Your task to perform on an android device: turn on data saver in the chrome app Image 0: 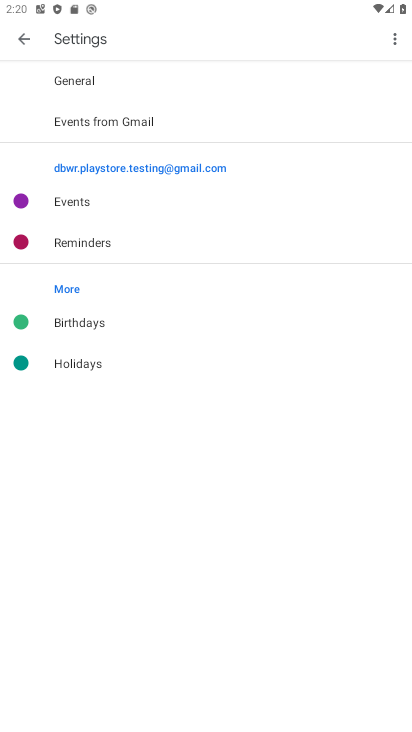
Step 0: press home button
Your task to perform on an android device: turn on data saver in the chrome app Image 1: 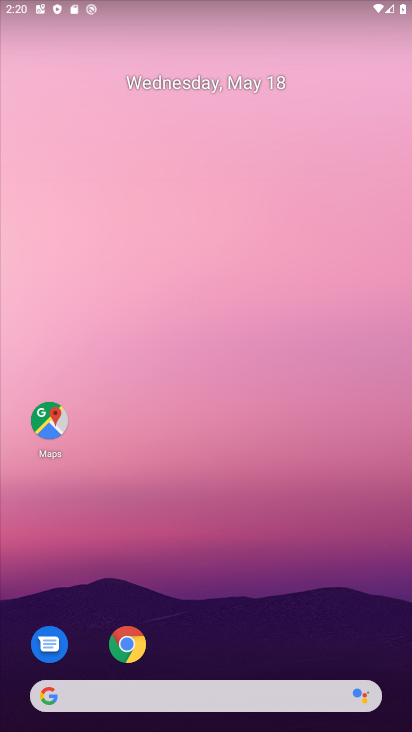
Step 1: click (128, 645)
Your task to perform on an android device: turn on data saver in the chrome app Image 2: 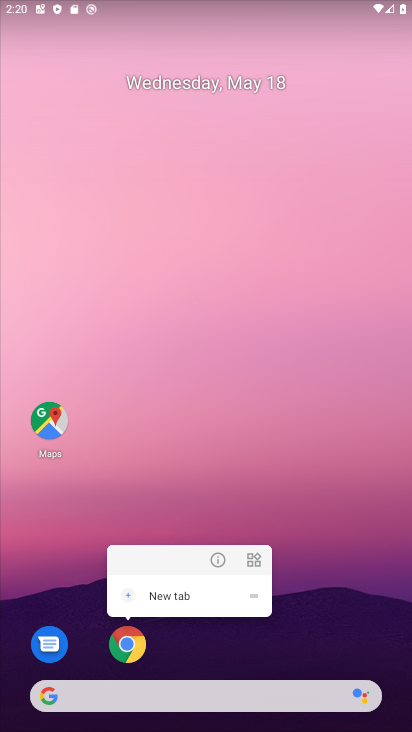
Step 2: click (128, 643)
Your task to perform on an android device: turn on data saver in the chrome app Image 3: 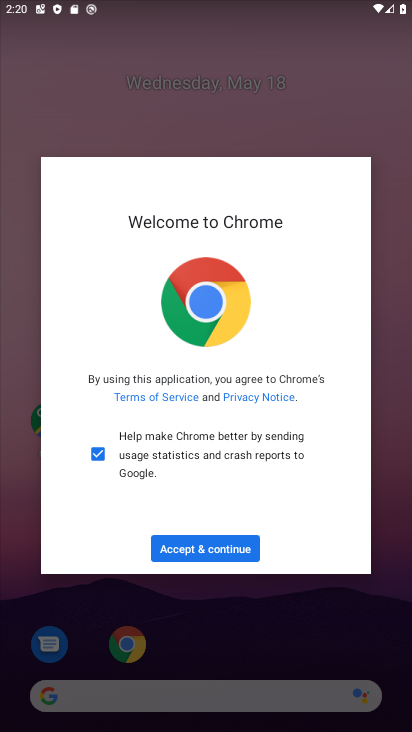
Step 3: click (228, 548)
Your task to perform on an android device: turn on data saver in the chrome app Image 4: 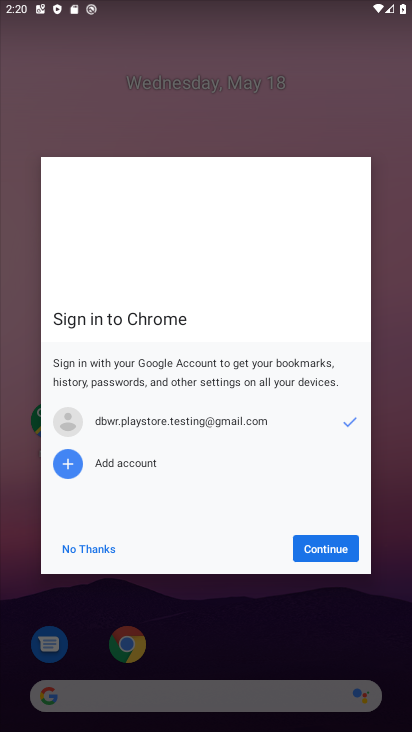
Step 4: click (322, 546)
Your task to perform on an android device: turn on data saver in the chrome app Image 5: 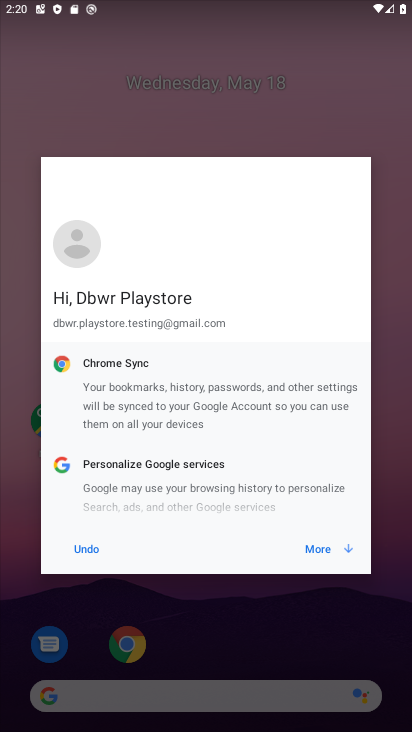
Step 5: click (322, 546)
Your task to perform on an android device: turn on data saver in the chrome app Image 6: 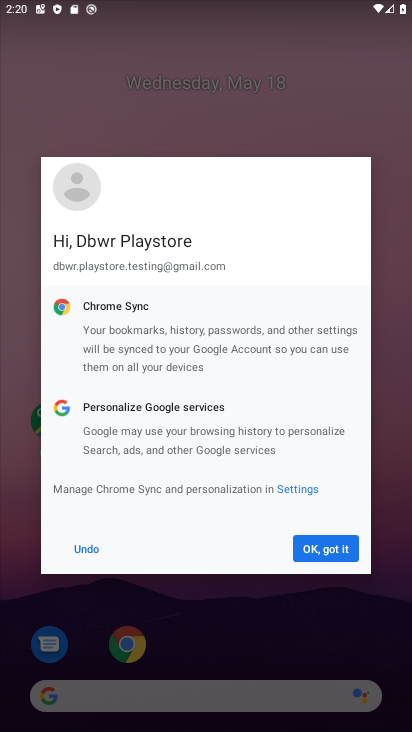
Step 6: click (322, 546)
Your task to perform on an android device: turn on data saver in the chrome app Image 7: 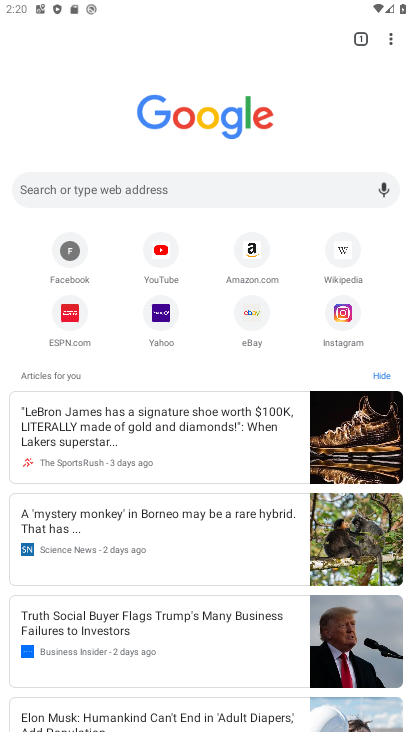
Step 7: click (394, 30)
Your task to perform on an android device: turn on data saver in the chrome app Image 8: 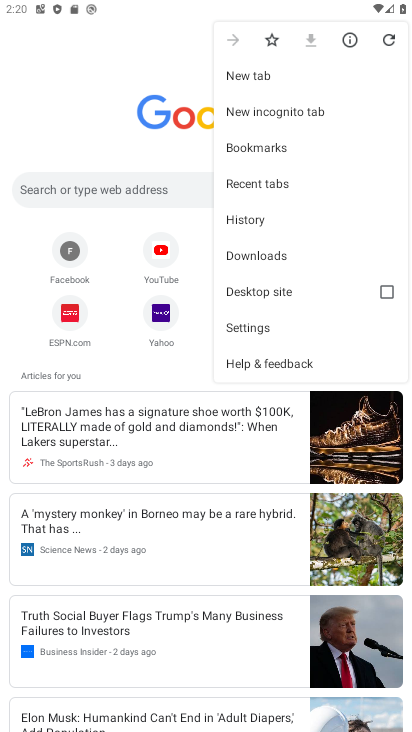
Step 8: click (275, 327)
Your task to perform on an android device: turn on data saver in the chrome app Image 9: 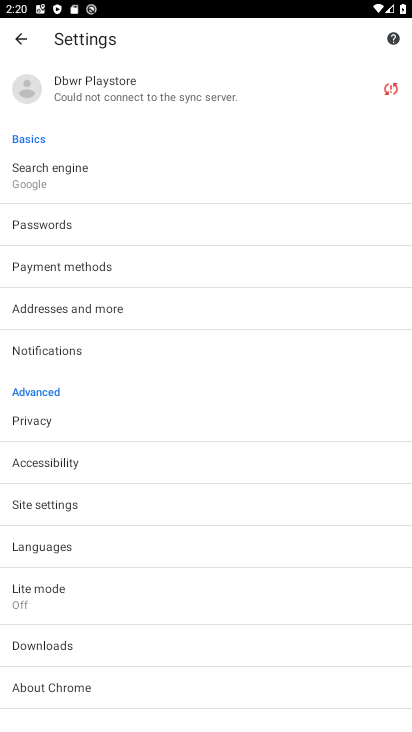
Step 9: click (133, 597)
Your task to perform on an android device: turn on data saver in the chrome app Image 10: 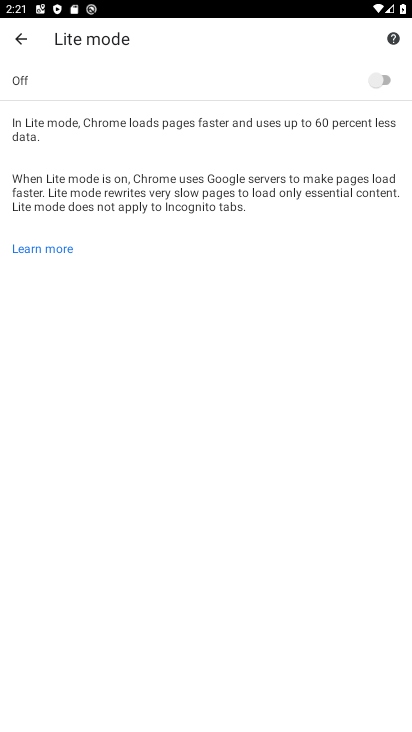
Step 10: click (398, 79)
Your task to perform on an android device: turn on data saver in the chrome app Image 11: 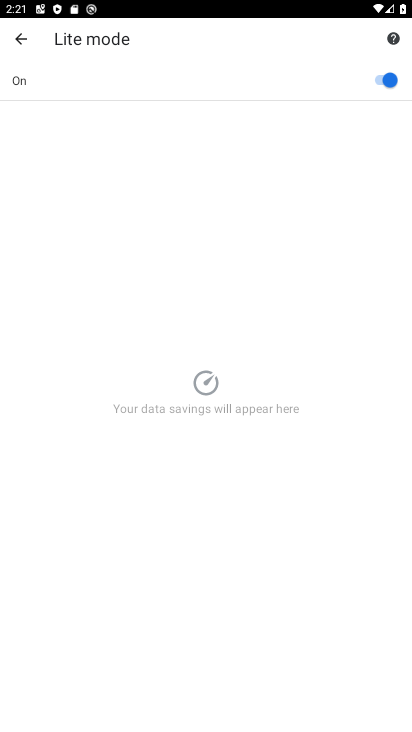
Step 11: task complete